Your task to perform on an android device: Clear the shopping cart on costco. Search for jbl charge 4 on costco, select the first entry, and add it to the cart. Image 0: 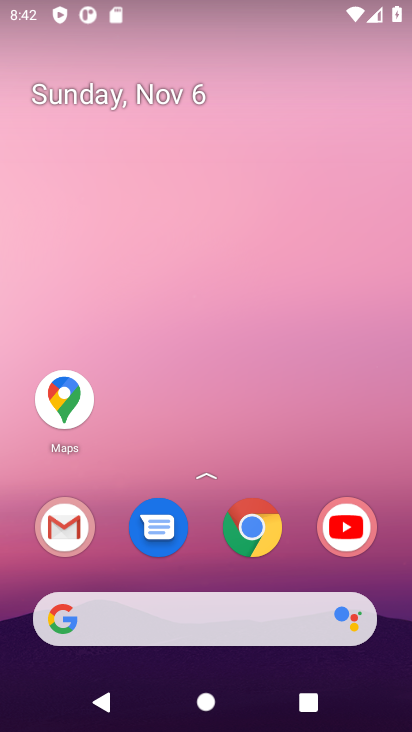
Step 0: click (256, 535)
Your task to perform on an android device: Clear the shopping cart on costco. Search for jbl charge 4 on costco, select the first entry, and add it to the cart. Image 1: 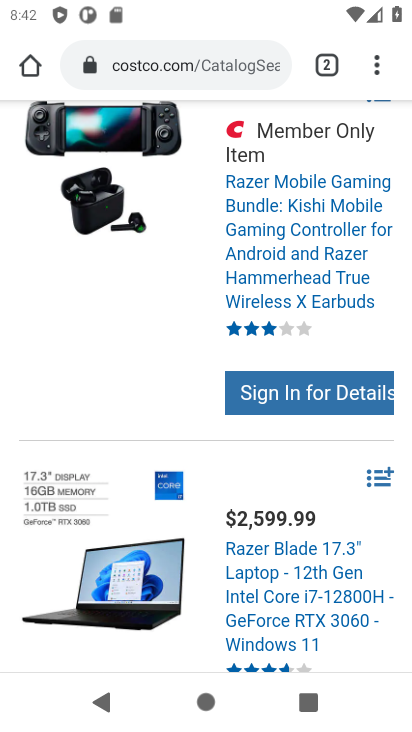
Step 1: drag from (227, 192) to (207, 704)
Your task to perform on an android device: Clear the shopping cart on costco. Search for jbl charge 4 on costco, select the first entry, and add it to the cart. Image 2: 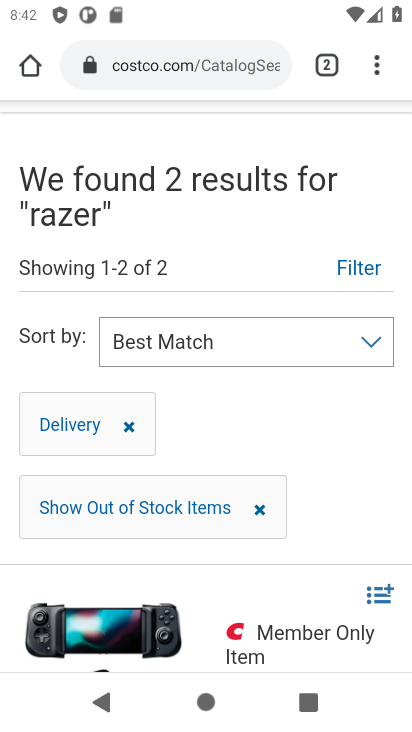
Step 2: drag from (255, 236) to (225, 719)
Your task to perform on an android device: Clear the shopping cart on costco. Search for jbl charge 4 on costco, select the first entry, and add it to the cart. Image 3: 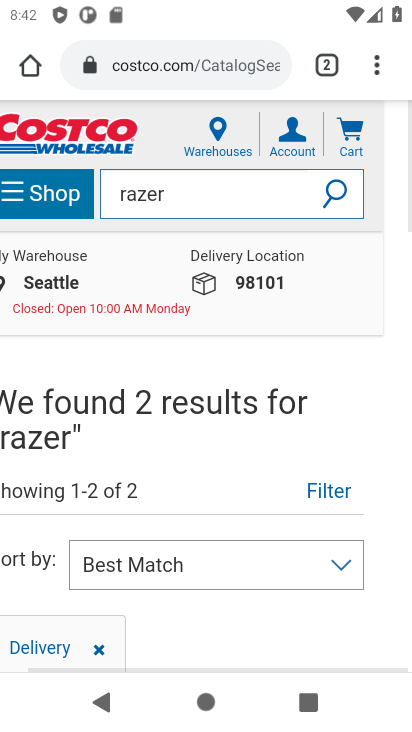
Step 3: click (216, 187)
Your task to perform on an android device: Clear the shopping cart on costco. Search for jbl charge 4 on costco, select the first entry, and add it to the cart. Image 4: 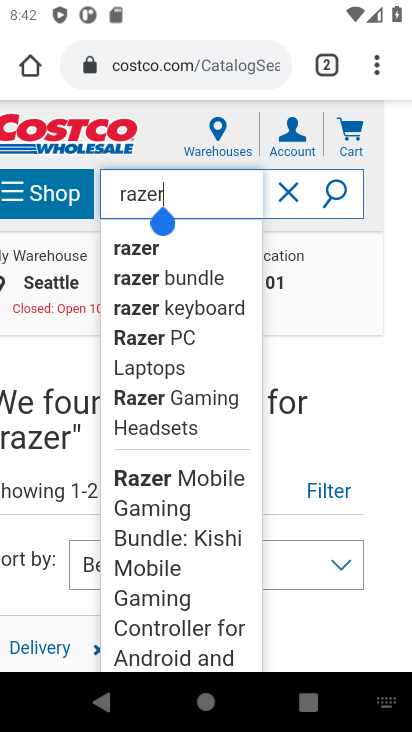
Step 4: click (283, 195)
Your task to perform on an android device: Clear the shopping cart on costco. Search for jbl charge 4 on costco, select the first entry, and add it to the cart. Image 5: 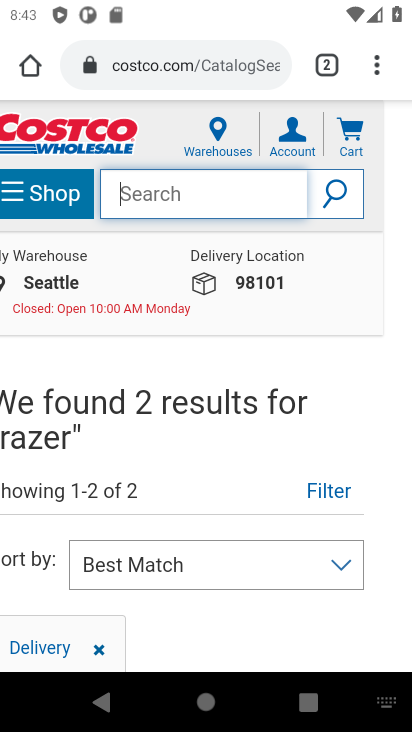
Step 5: click (172, 191)
Your task to perform on an android device: Clear the shopping cart on costco. Search for jbl charge 4 on costco, select the first entry, and add it to the cart. Image 6: 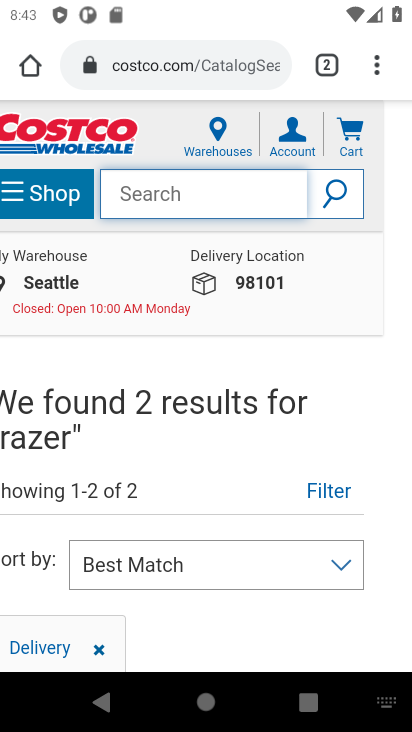
Step 6: type " jbl charge 4 "
Your task to perform on an android device: Clear the shopping cart on costco. Search for jbl charge 4 on costco, select the first entry, and add it to the cart. Image 7: 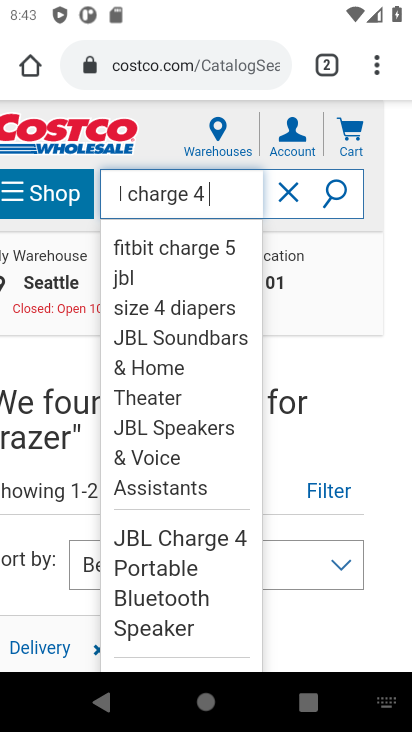
Step 7: click (208, 540)
Your task to perform on an android device: Clear the shopping cart on costco. Search for jbl charge 4 on costco, select the first entry, and add it to the cart. Image 8: 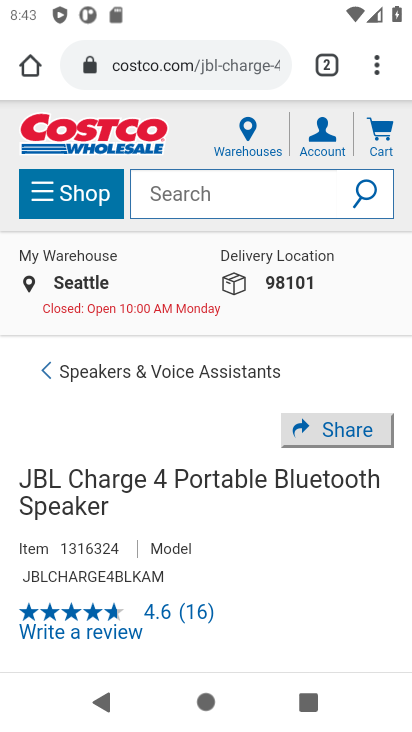
Step 8: task complete